Your task to perform on an android device: Search for usb-a to usb-b on amazon, select the first entry, and add it to the cart. Image 0: 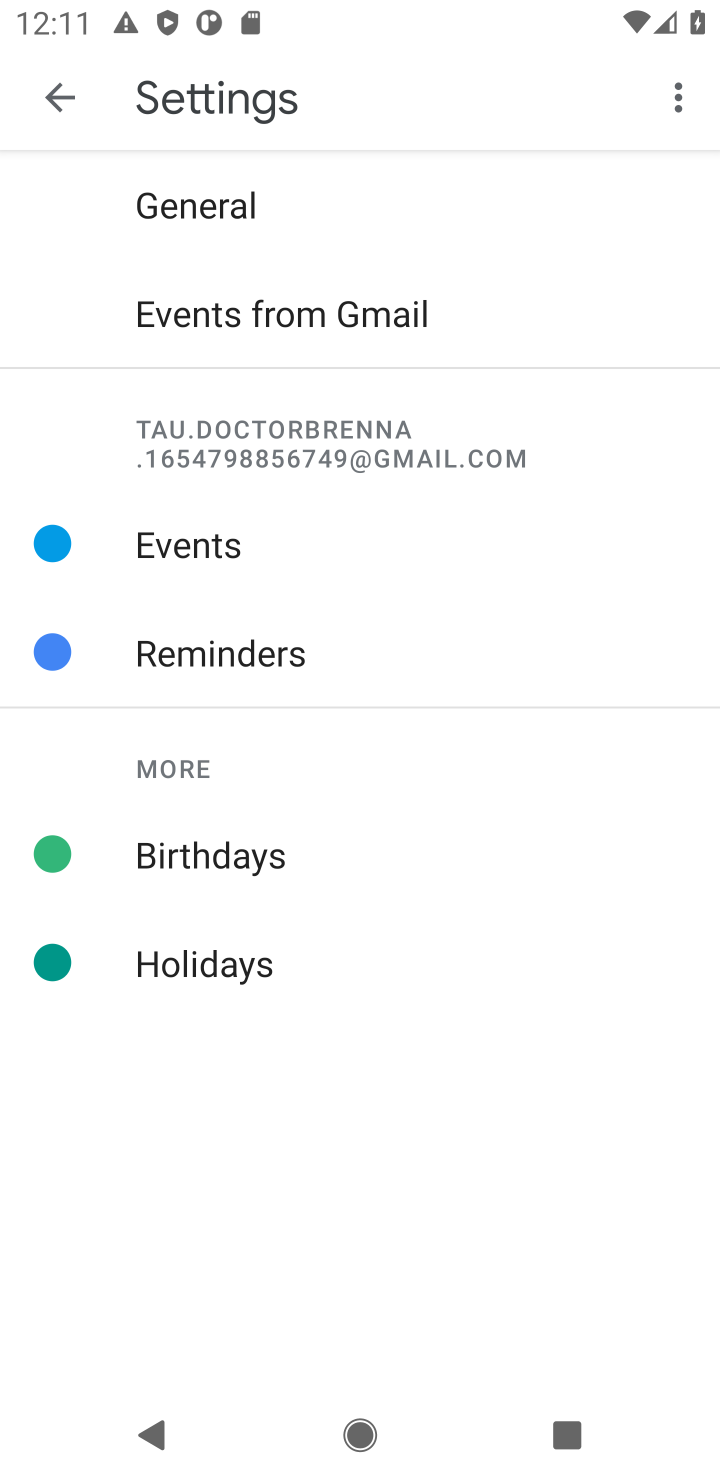
Step 0: press home button
Your task to perform on an android device: Search for usb-a to usb-b on amazon, select the first entry, and add it to the cart. Image 1: 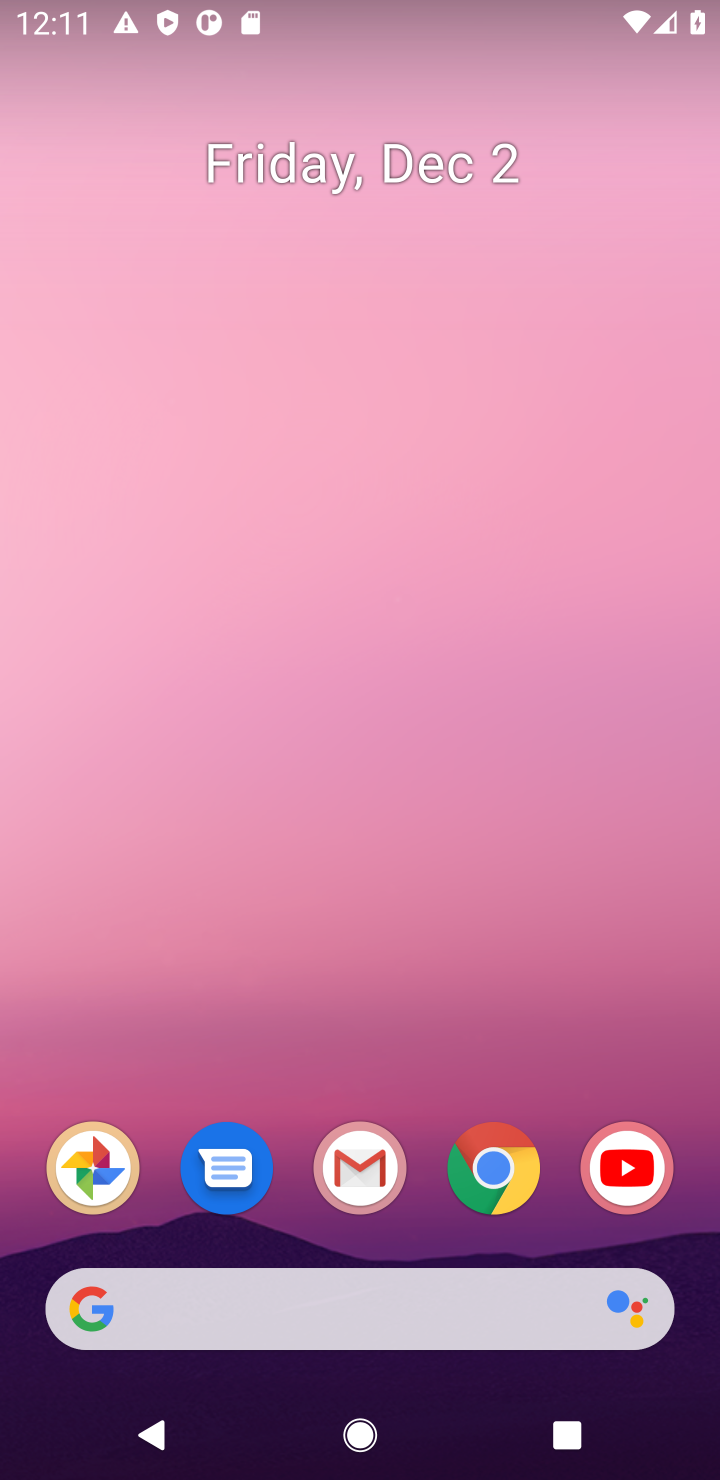
Step 1: click (98, 1303)
Your task to perform on an android device: Search for usb-a to usb-b on amazon, select the first entry, and add it to the cart. Image 2: 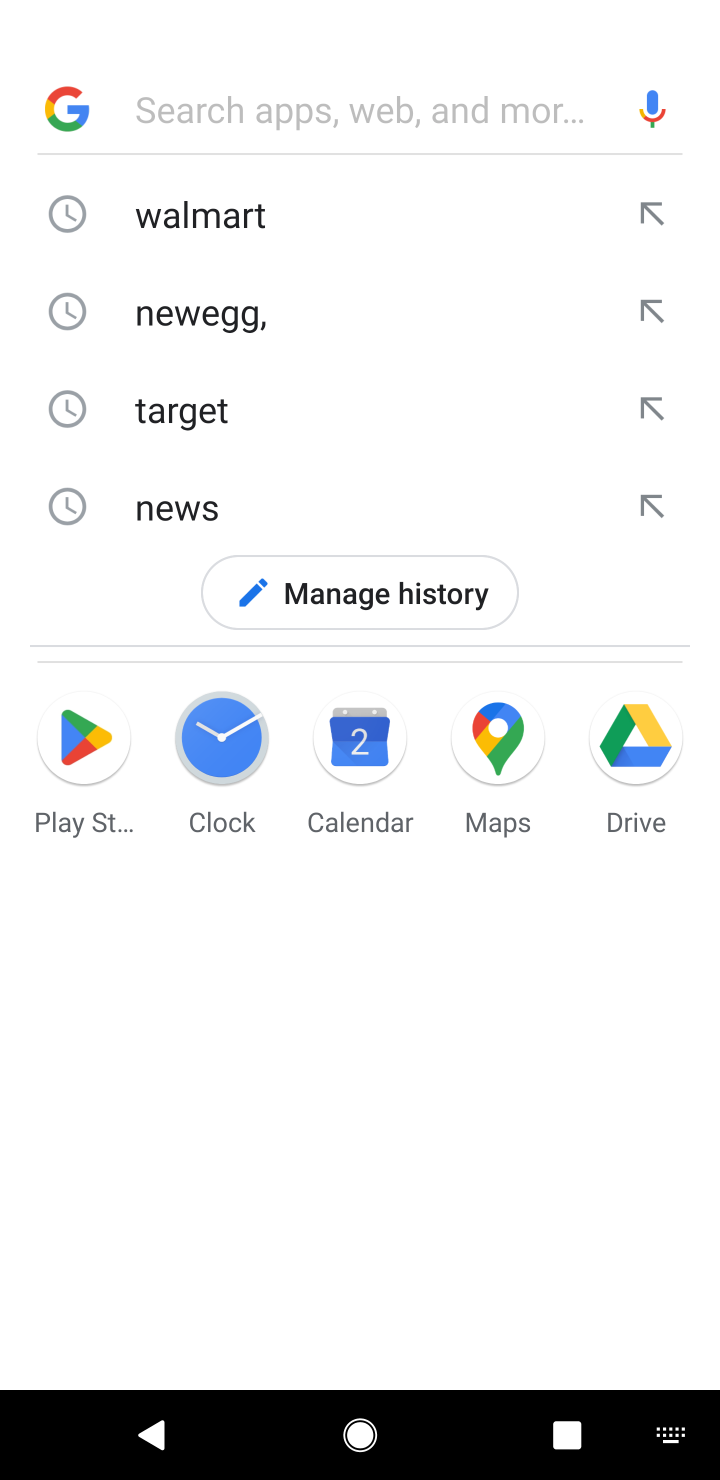
Step 2: type "amazon"
Your task to perform on an android device: Search for usb-a to usb-b on amazon, select the first entry, and add it to the cart. Image 3: 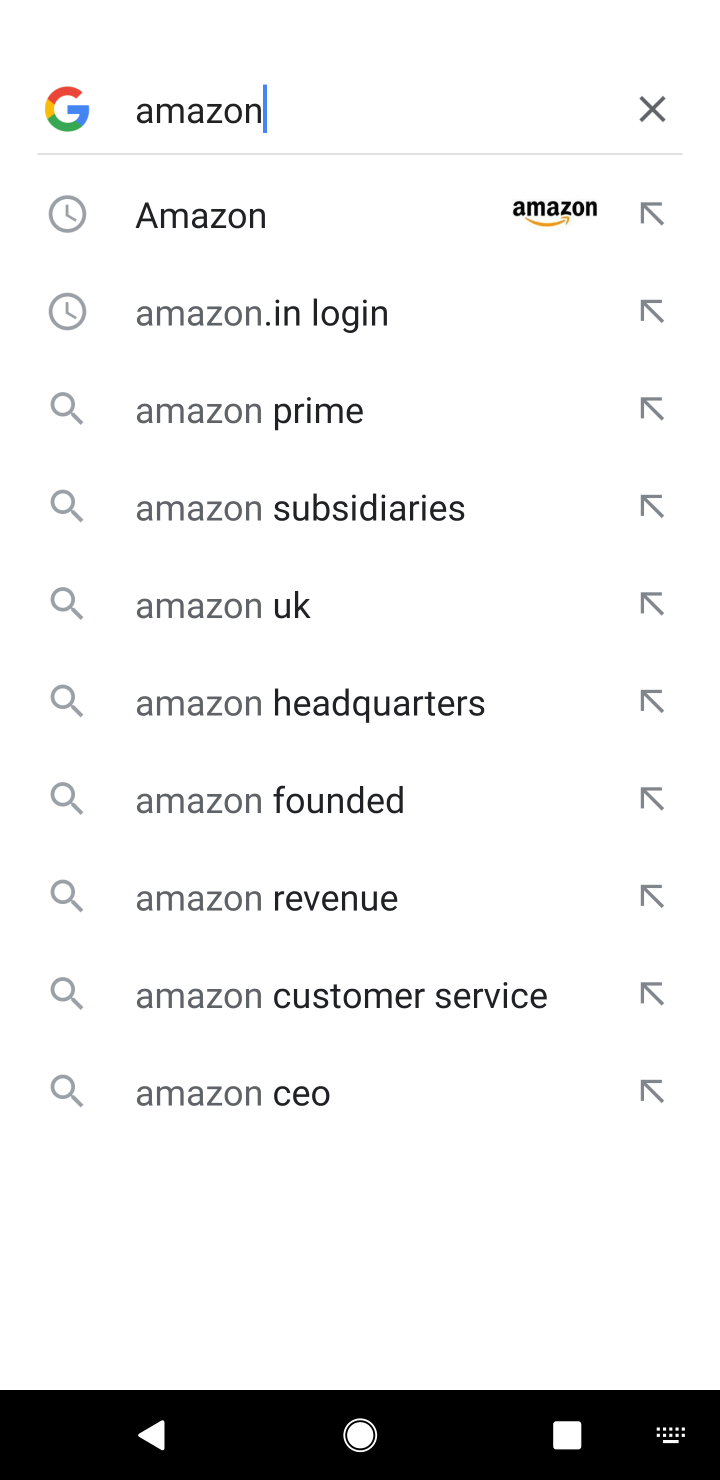
Step 3: click (220, 206)
Your task to perform on an android device: Search for usb-a to usb-b on amazon, select the first entry, and add it to the cart. Image 4: 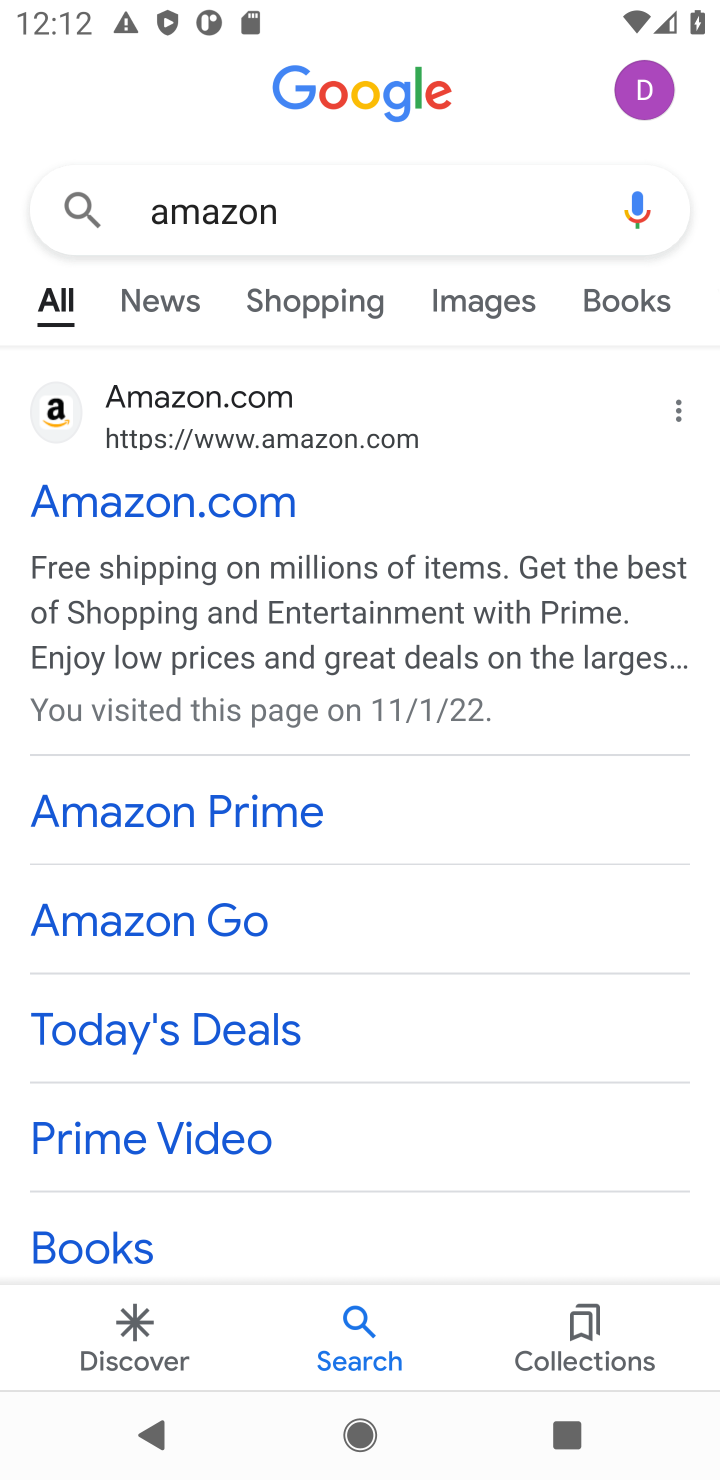
Step 4: click (129, 503)
Your task to perform on an android device: Search for usb-a to usb-b on amazon, select the first entry, and add it to the cart. Image 5: 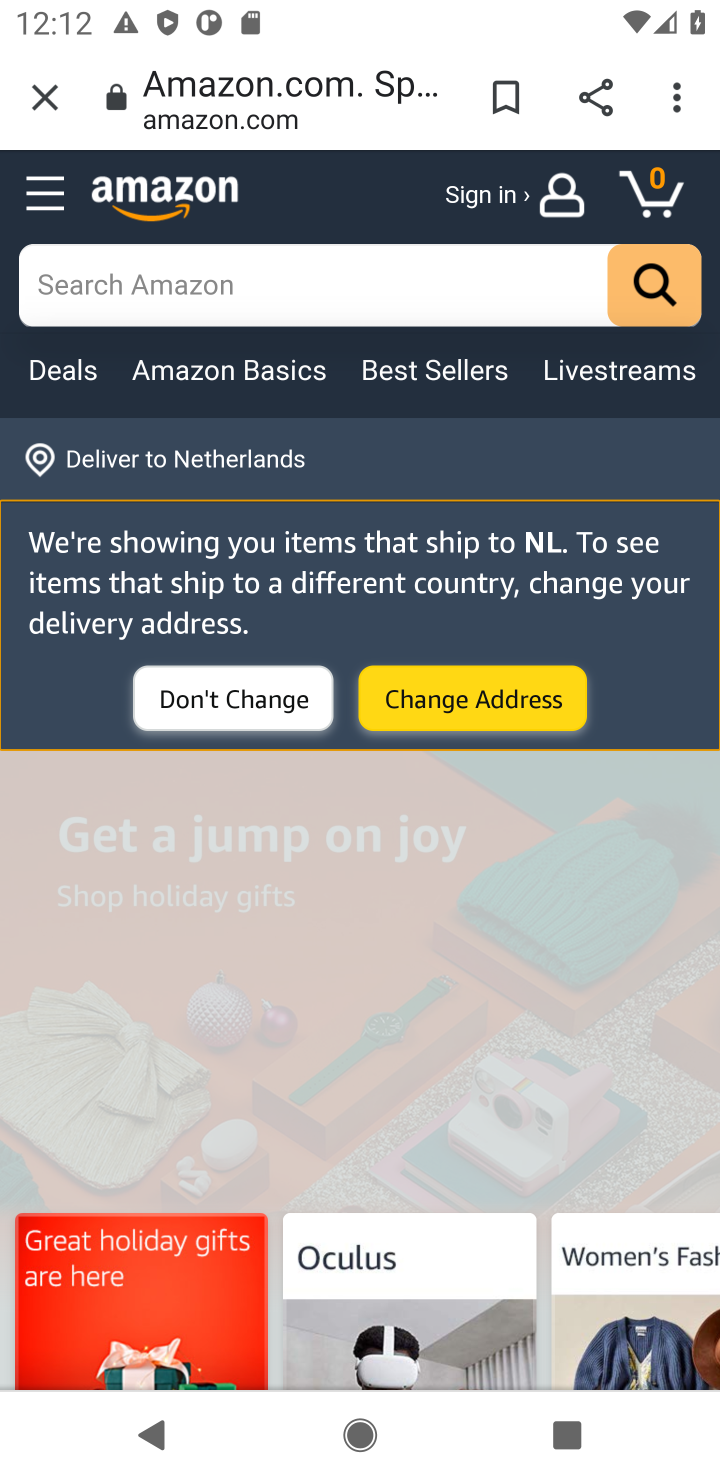
Step 5: click (240, 304)
Your task to perform on an android device: Search for usb-a to usb-b on amazon, select the first entry, and add it to the cart. Image 6: 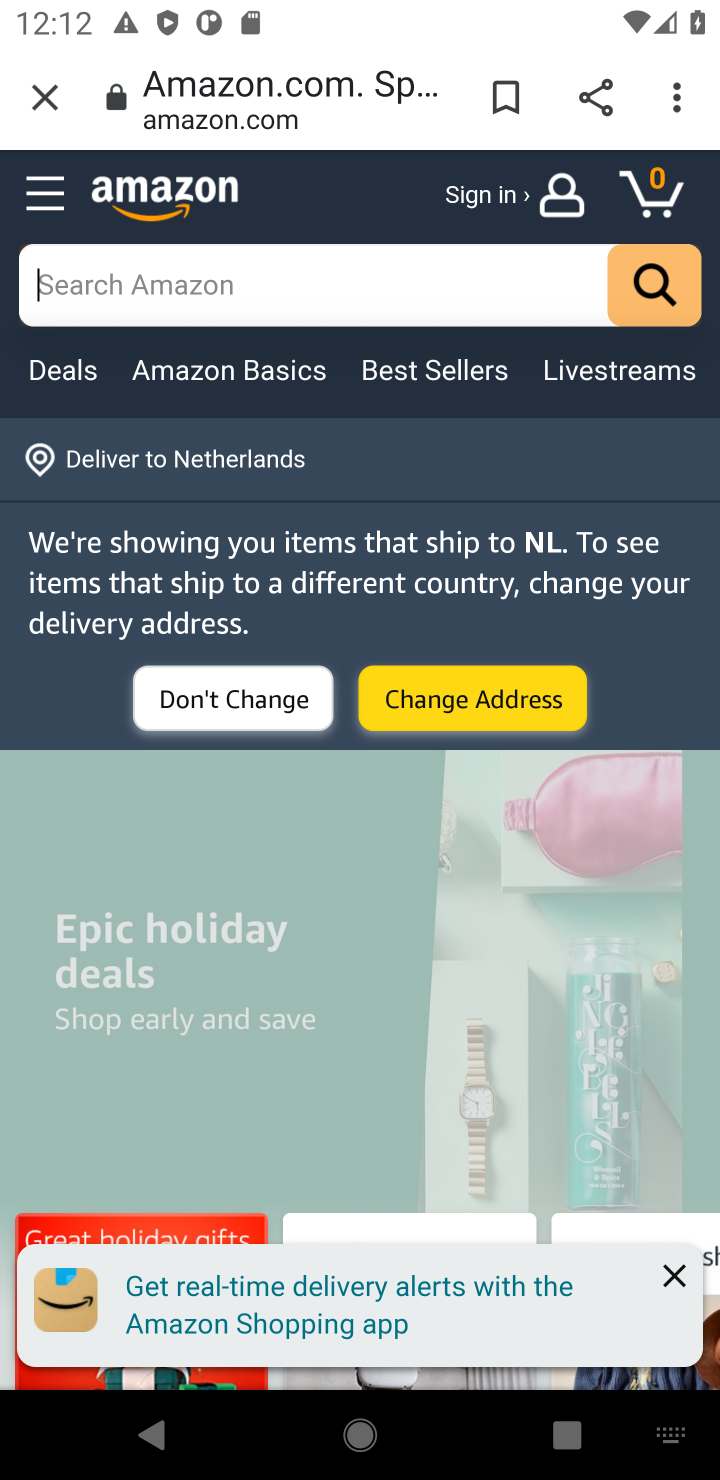
Step 6: type "usb-a to usb-b"
Your task to perform on an android device: Search for usb-a to usb-b on amazon, select the first entry, and add it to the cart. Image 7: 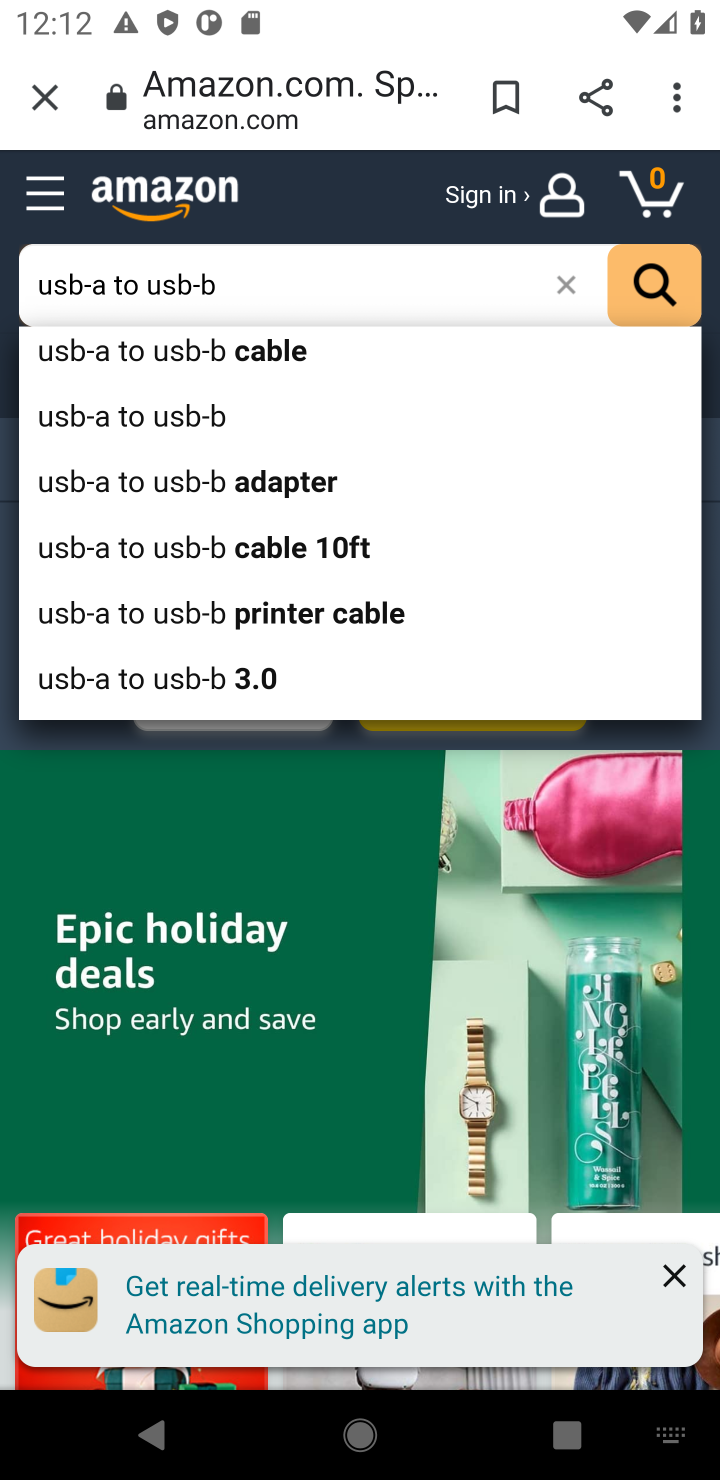
Step 7: click (217, 353)
Your task to perform on an android device: Search for usb-a to usb-b on amazon, select the first entry, and add it to the cart. Image 8: 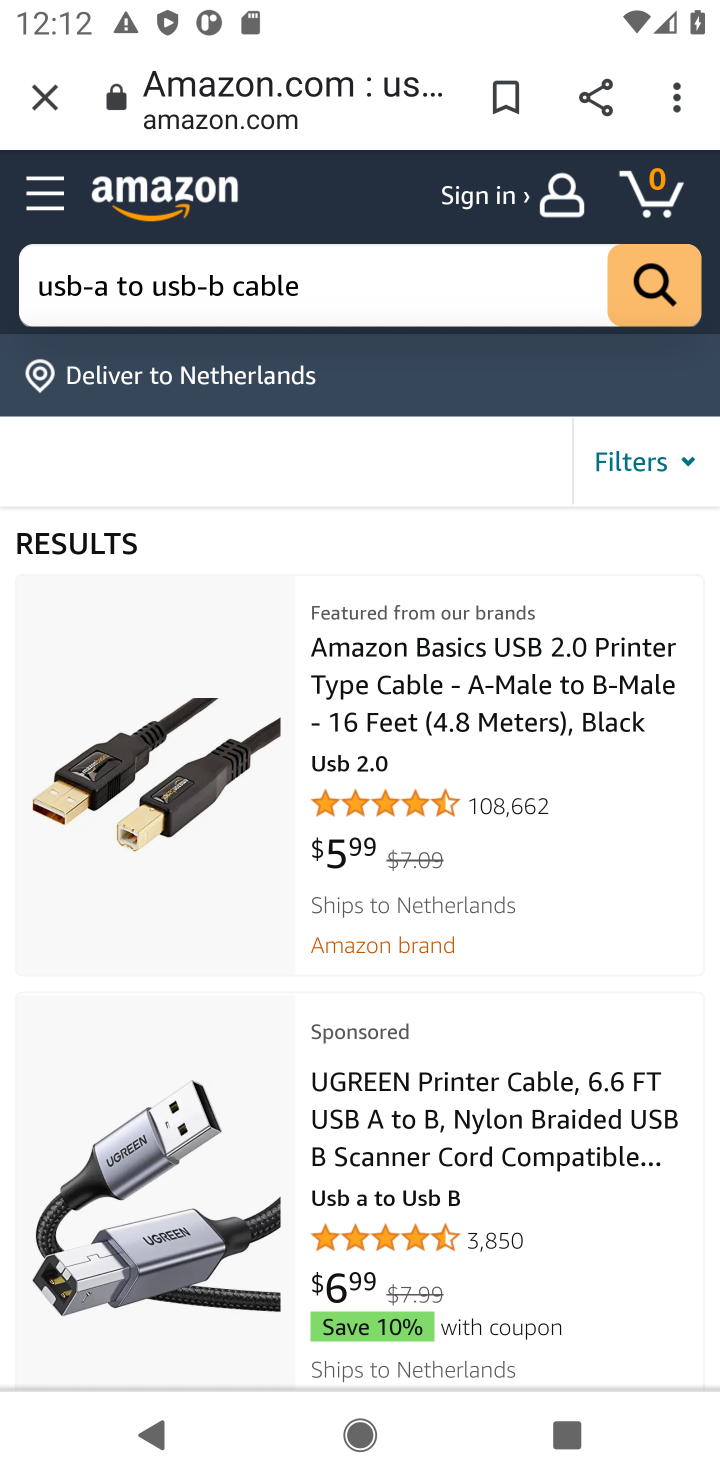
Step 8: click (454, 694)
Your task to perform on an android device: Search for usb-a to usb-b on amazon, select the first entry, and add it to the cart. Image 9: 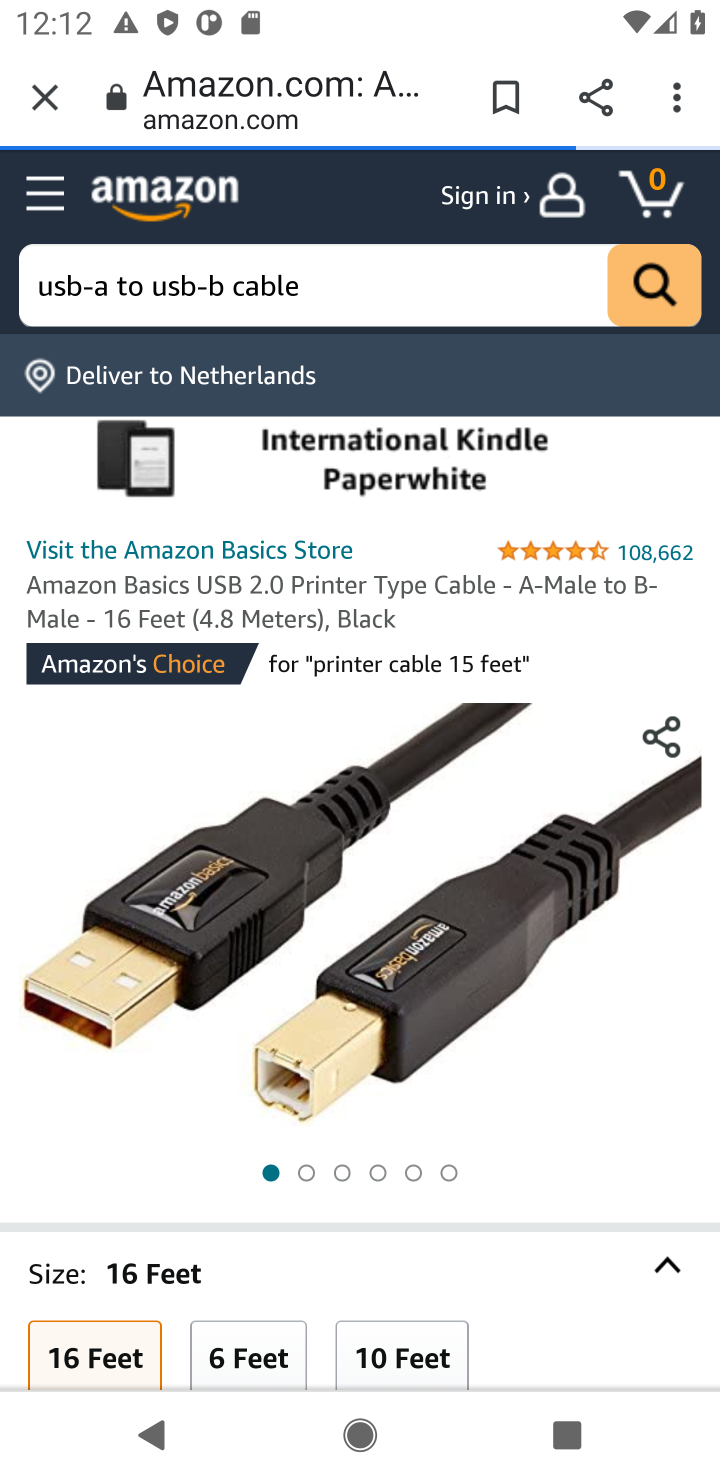
Step 9: drag from (532, 1299) to (499, 605)
Your task to perform on an android device: Search for usb-a to usb-b on amazon, select the first entry, and add it to the cart. Image 10: 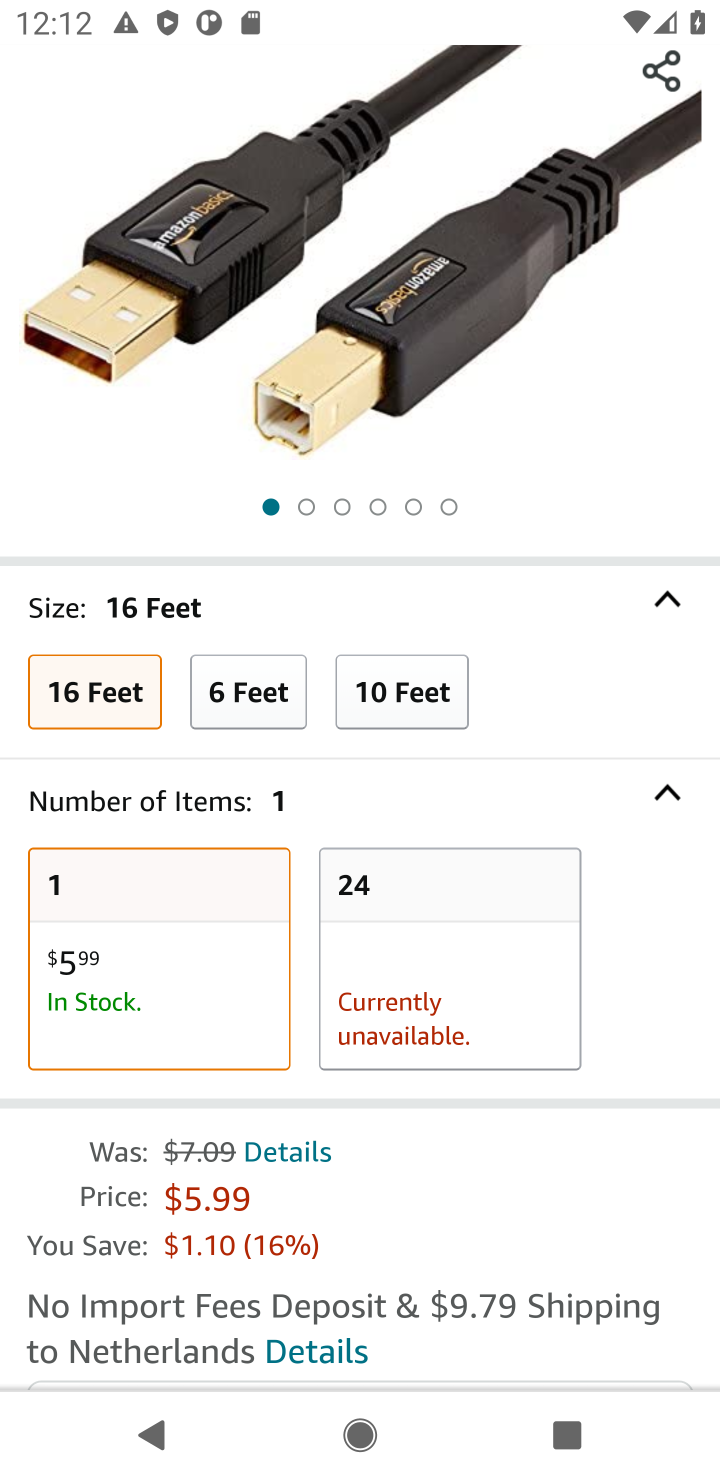
Step 10: click (506, 1037)
Your task to perform on an android device: Search for usb-a to usb-b on amazon, select the first entry, and add it to the cart. Image 11: 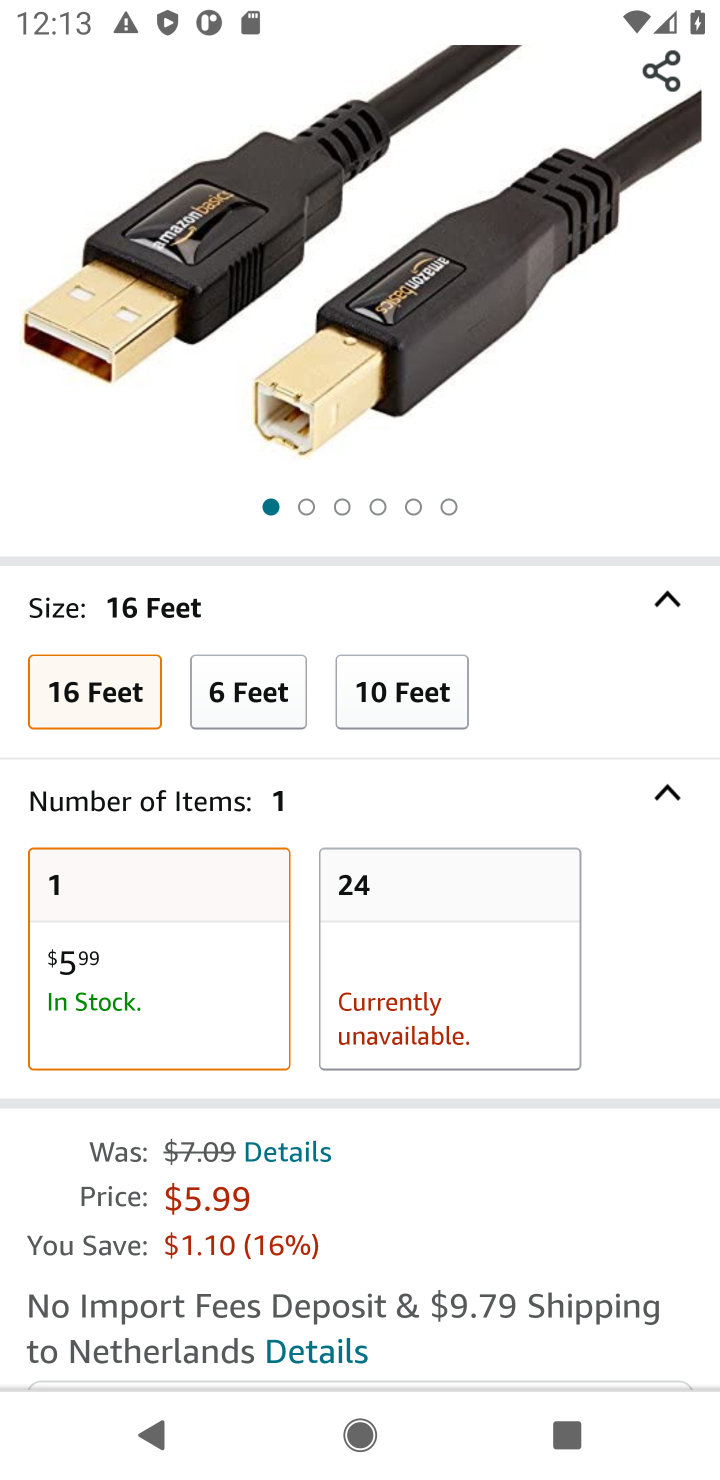
Step 11: drag from (568, 1277) to (458, 321)
Your task to perform on an android device: Search for usb-a to usb-b on amazon, select the first entry, and add it to the cart. Image 12: 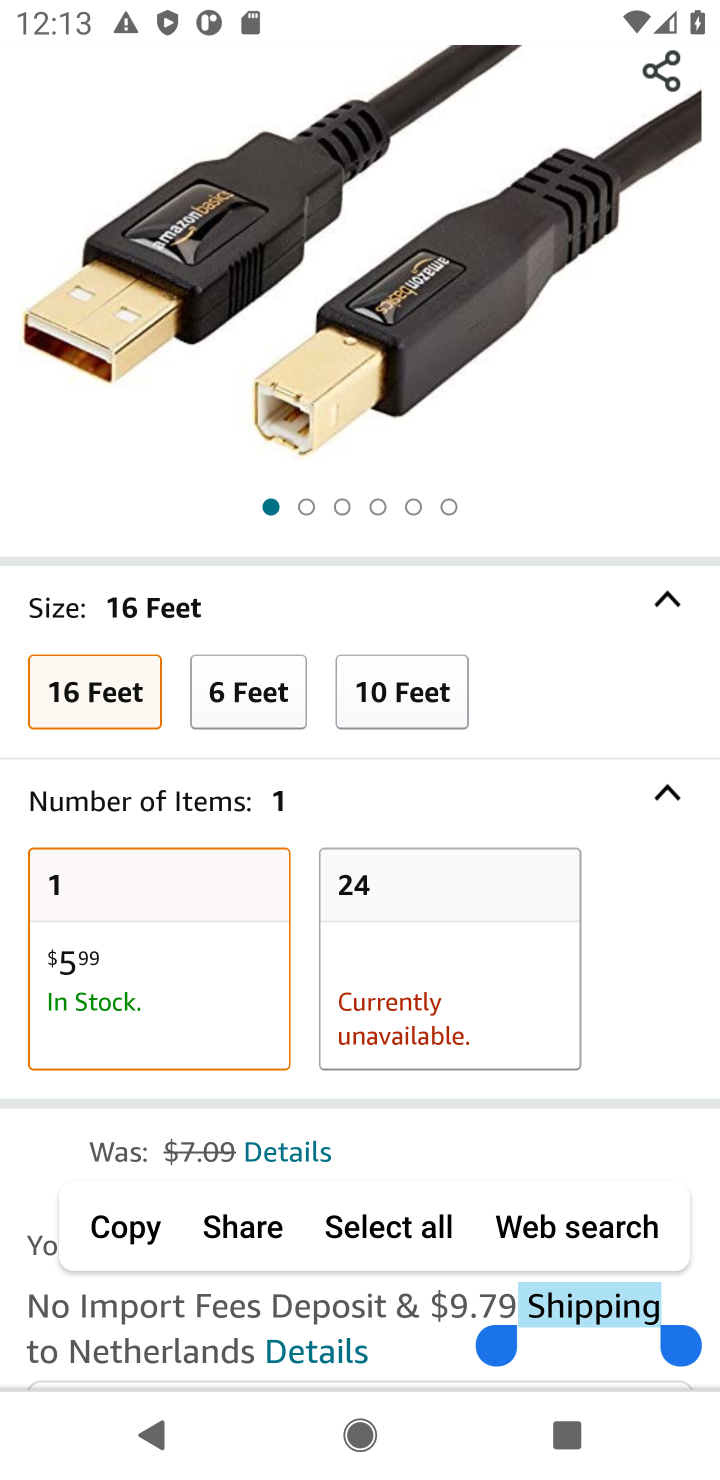
Step 12: click (674, 1002)
Your task to perform on an android device: Search for usb-a to usb-b on amazon, select the first entry, and add it to the cart. Image 13: 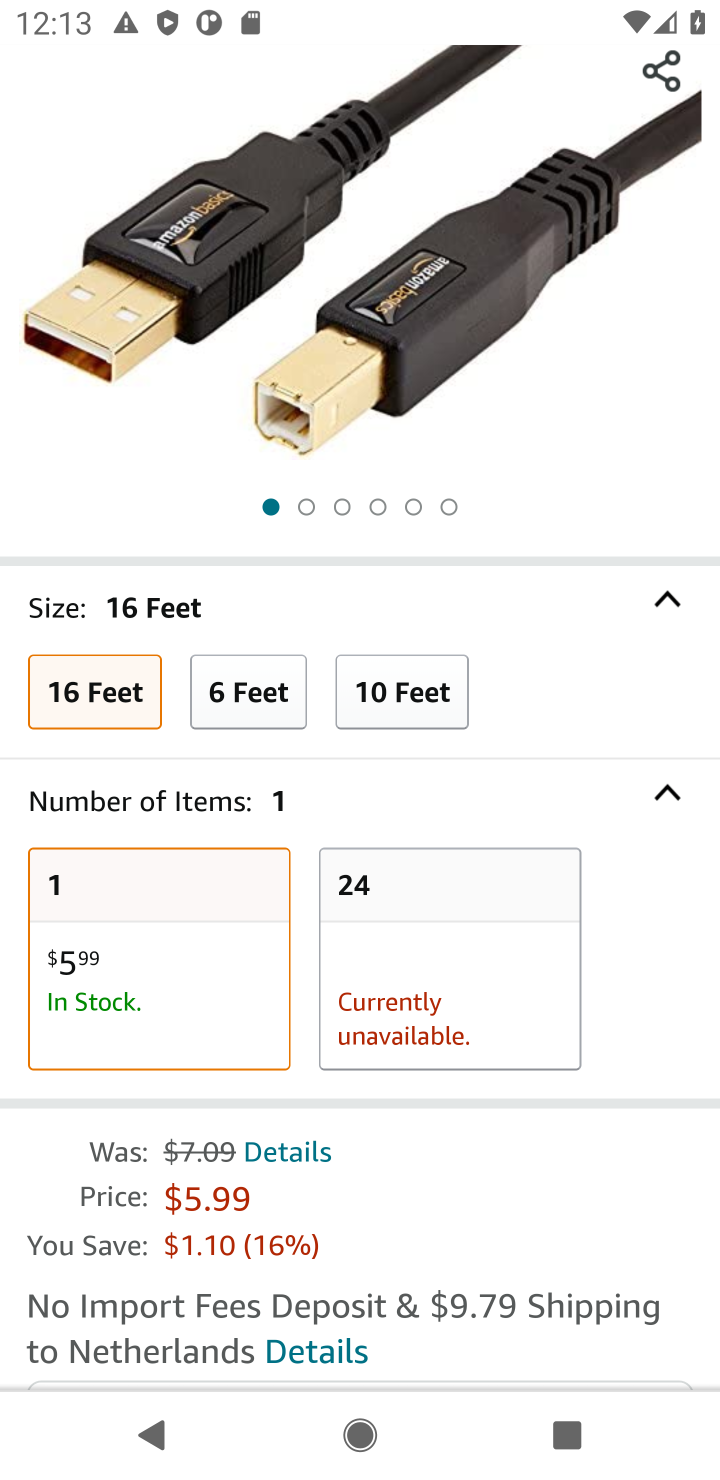
Step 13: drag from (636, 1028) to (561, 448)
Your task to perform on an android device: Search for usb-a to usb-b on amazon, select the first entry, and add it to the cart. Image 14: 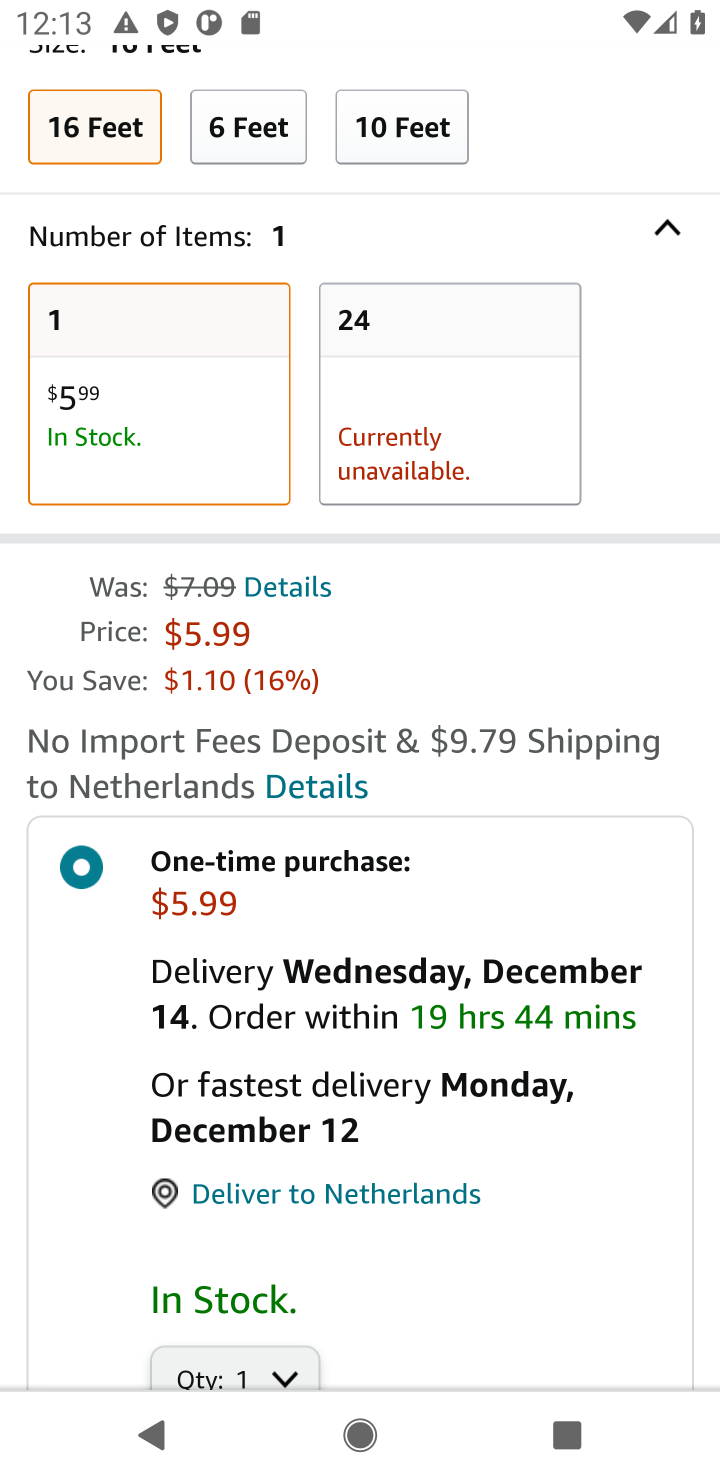
Step 14: drag from (508, 1182) to (401, 408)
Your task to perform on an android device: Search for usb-a to usb-b on amazon, select the first entry, and add it to the cart. Image 15: 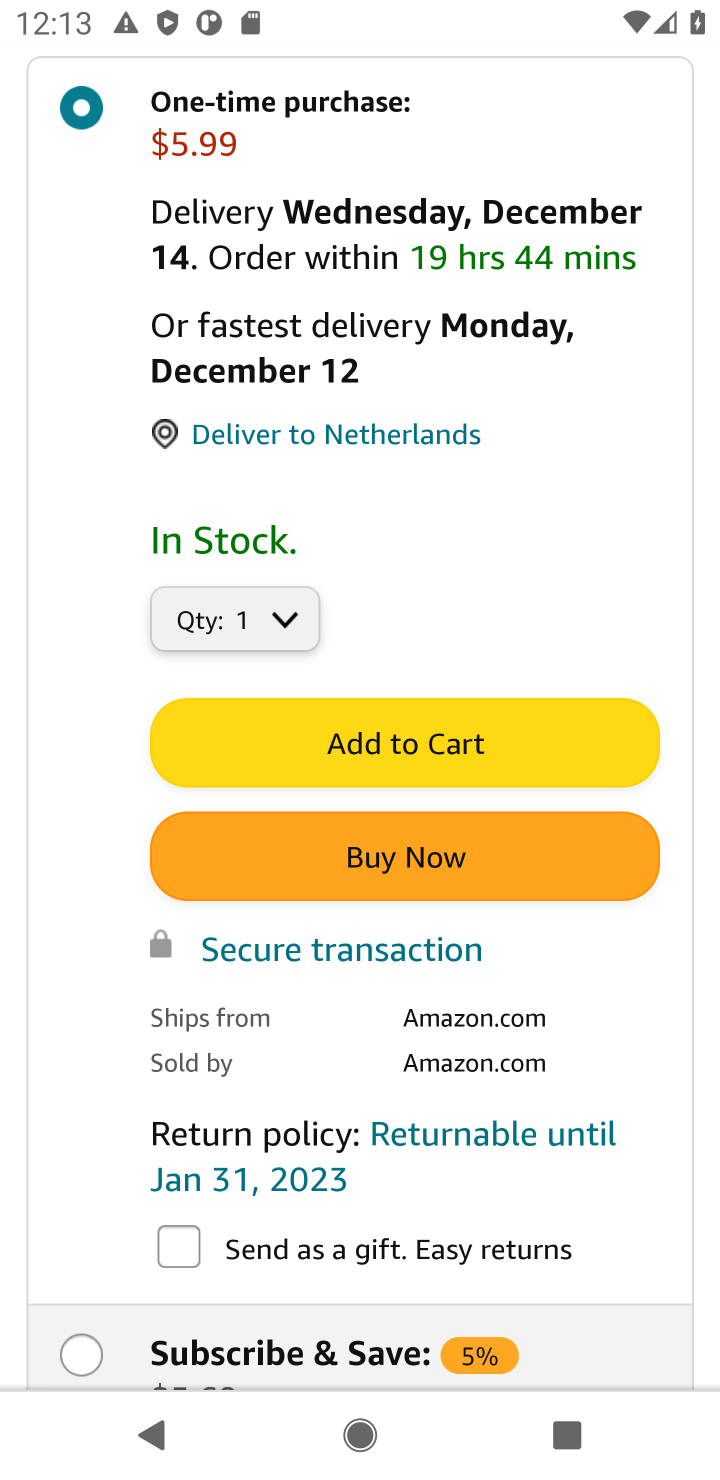
Step 15: click (419, 732)
Your task to perform on an android device: Search for usb-a to usb-b on amazon, select the first entry, and add it to the cart. Image 16: 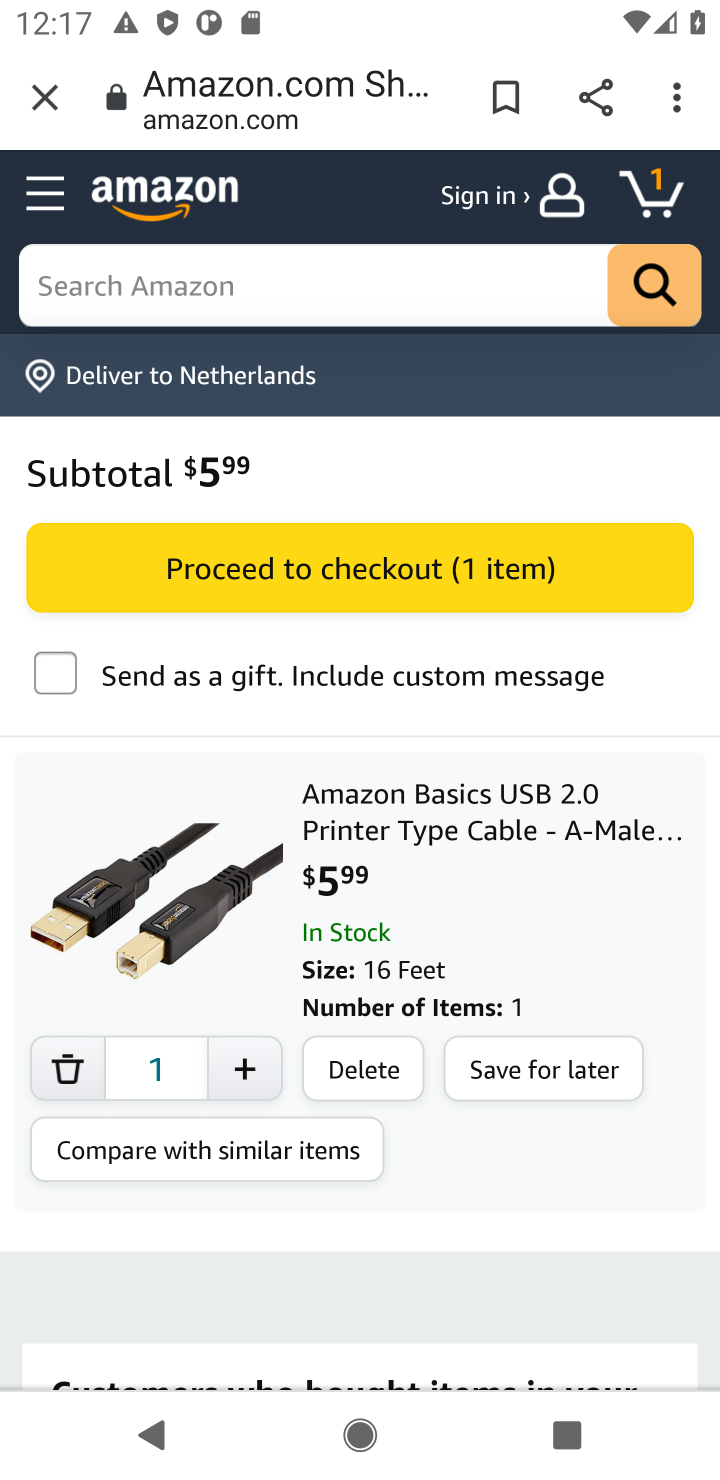
Step 16: task complete